Your task to perform on an android device: change the upload size in google photos Image 0: 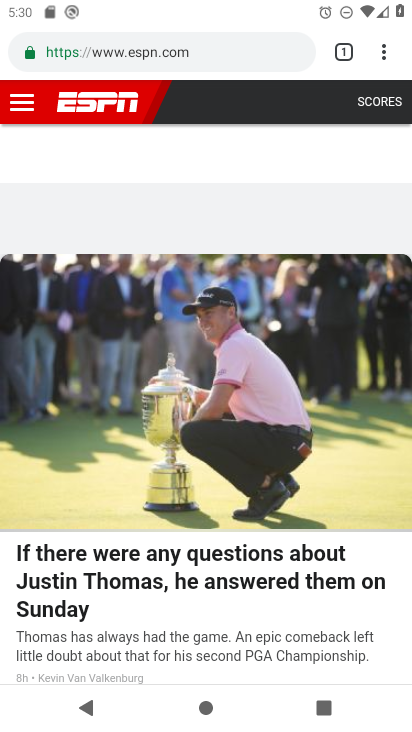
Step 0: press home button
Your task to perform on an android device: change the upload size in google photos Image 1: 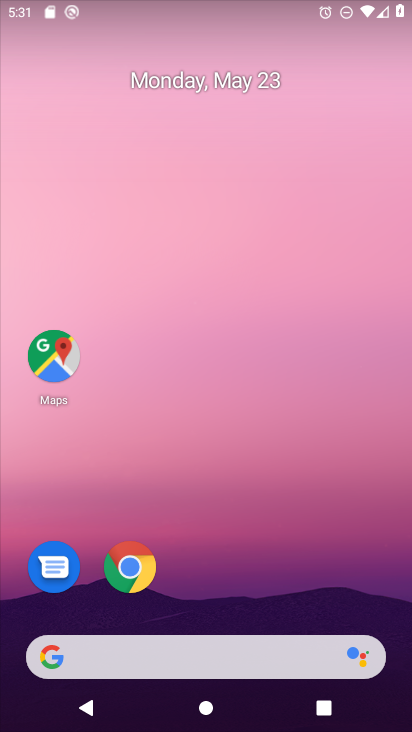
Step 1: drag from (207, 546) to (205, 71)
Your task to perform on an android device: change the upload size in google photos Image 2: 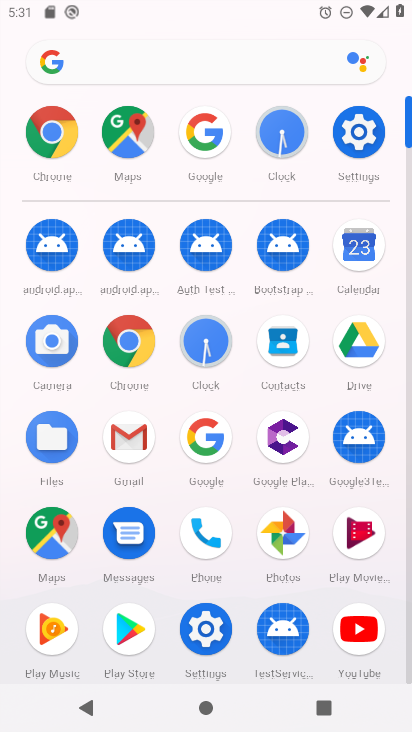
Step 2: click (282, 532)
Your task to perform on an android device: change the upload size in google photos Image 3: 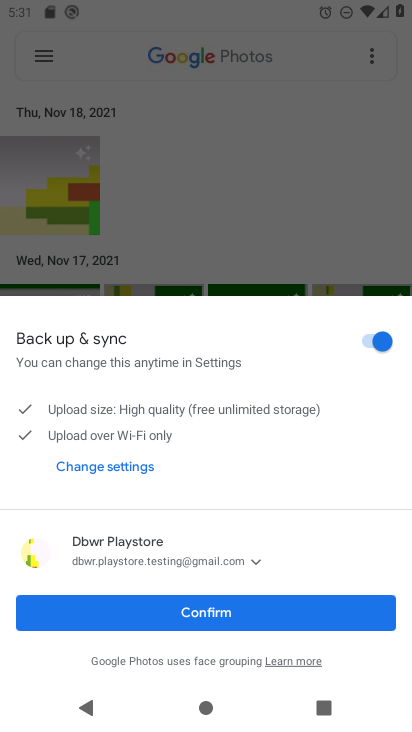
Step 3: click (214, 614)
Your task to perform on an android device: change the upload size in google photos Image 4: 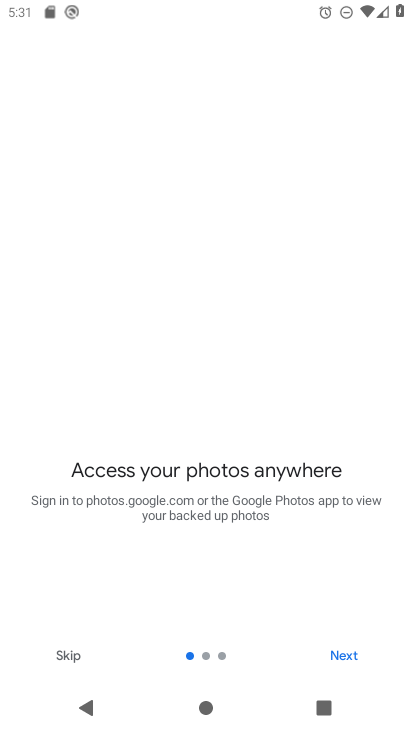
Step 4: click (346, 656)
Your task to perform on an android device: change the upload size in google photos Image 5: 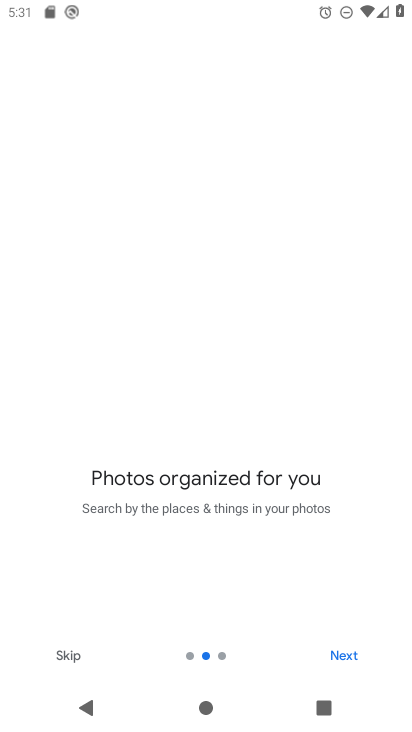
Step 5: click (346, 656)
Your task to perform on an android device: change the upload size in google photos Image 6: 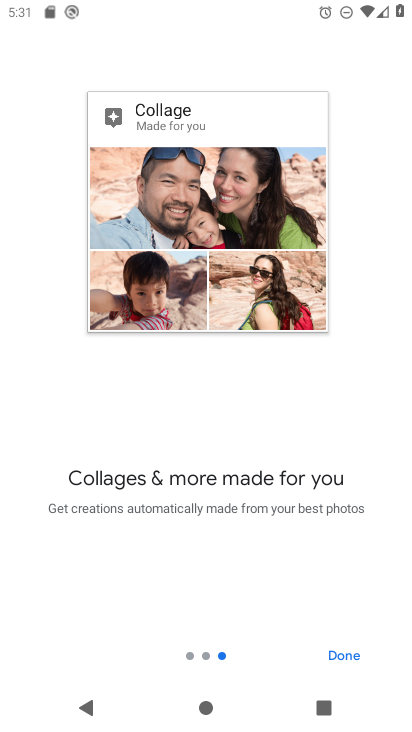
Step 6: click (346, 656)
Your task to perform on an android device: change the upload size in google photos Image 7: 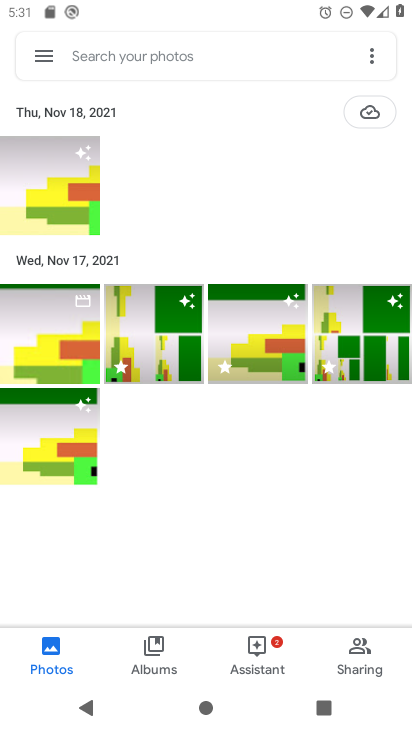
Step 7: click (42, 55)
Your task to perform on an android device: change the upload size in google photos Image 8: 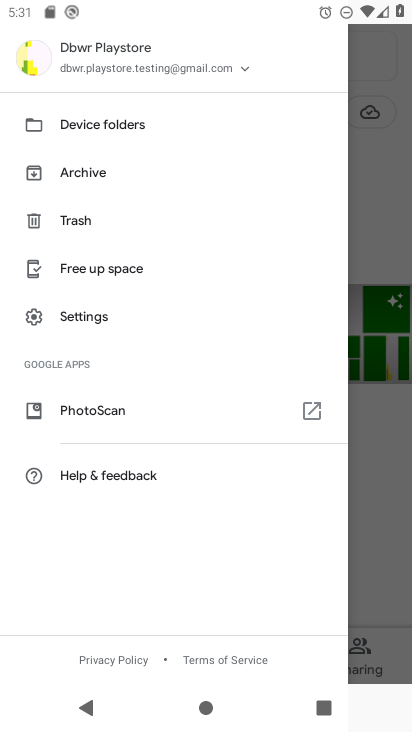
Step 8: click (66, 316)
Your task to perform on an android device: change the upload size in google photos Image 9: 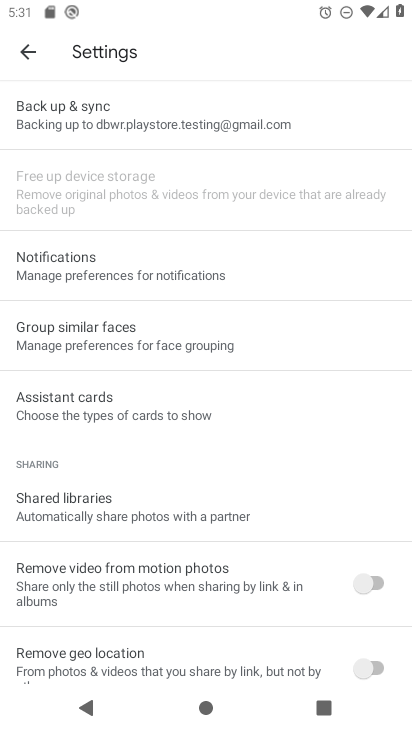
Step 9: click (66, 119)
Your task to perform on an android device: change the upload size in google photos Image 10: 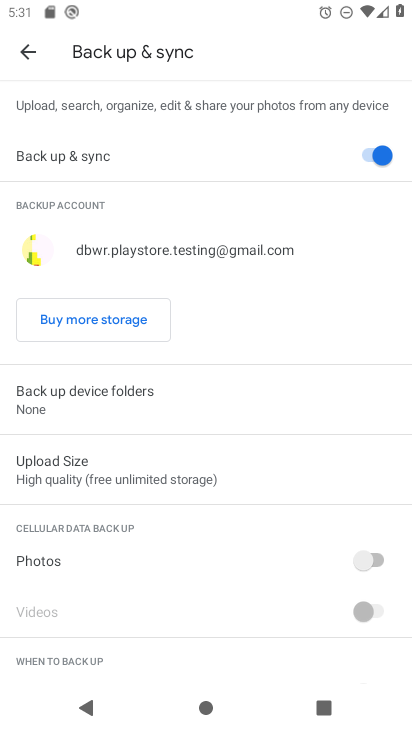
Step 10: click (83, 482)
Your task to perform on an android device: change the upload size in google photos Image 11: 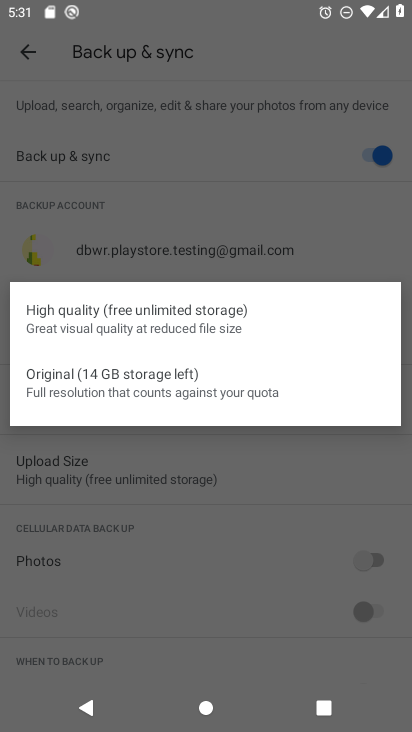
Step 11: click (66, 371)
Your task to perform on an android device: change the upload size in google photos Image 12: 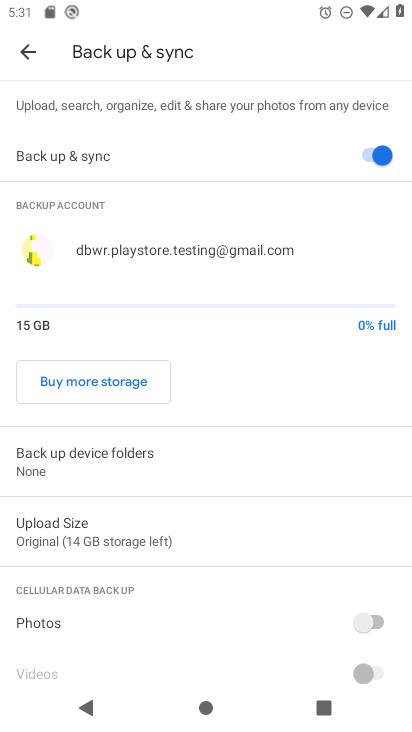
Step 12: task complete